Your task to perform on an android device: toggle location history Image 0: 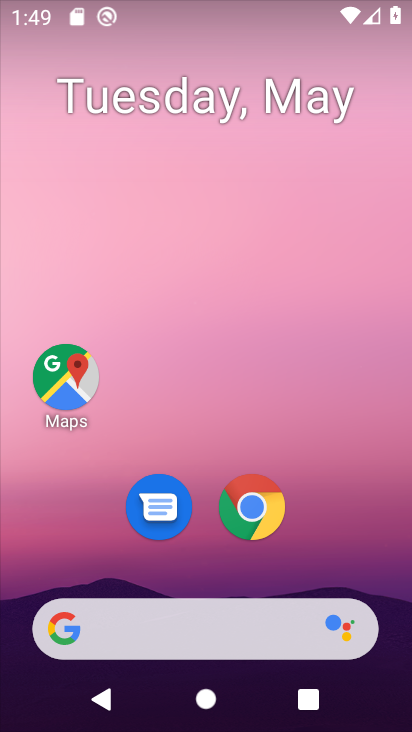
Step 0: drag from (201, 567) to (242, 124)
Your task to perform on an android device: toggle location history Image 1: 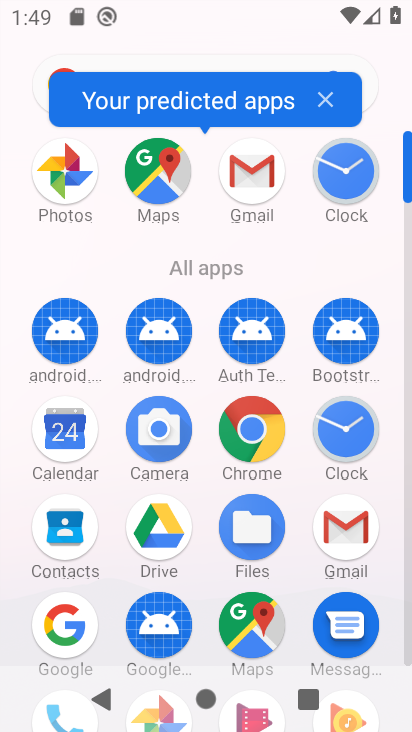
Step 1: drag from (114, 527) to (165, 194)
Your task to perform on an android device: toggle location history Image 2: 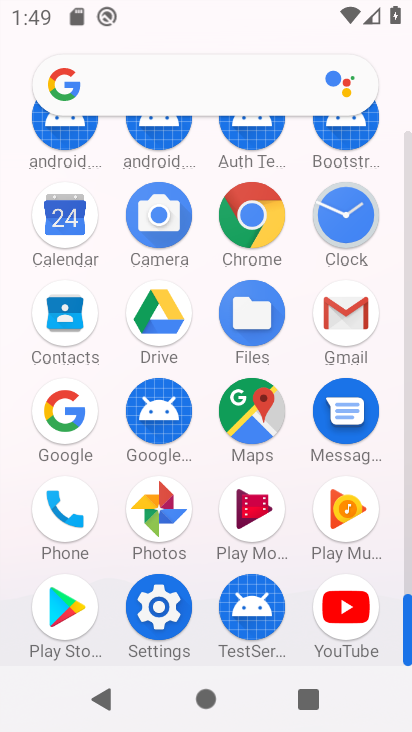
Step 2: click (142, 583)
Your task to perform on an android device: toggle location history Image 3: 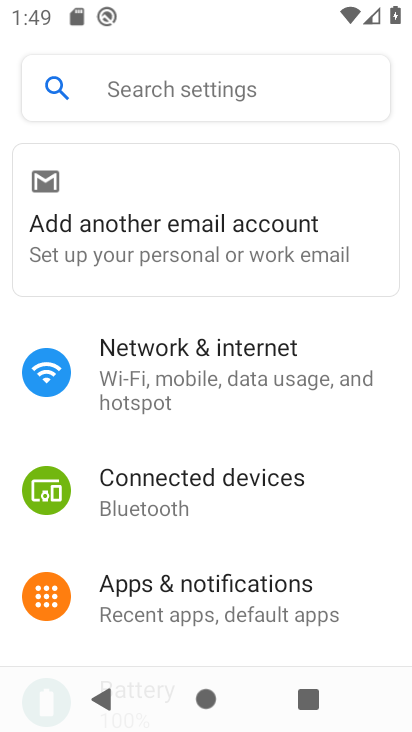
Step 3: drag from (204, 582) to (220, 286)
Your task to perform on an android device: toggle location history Image 4: 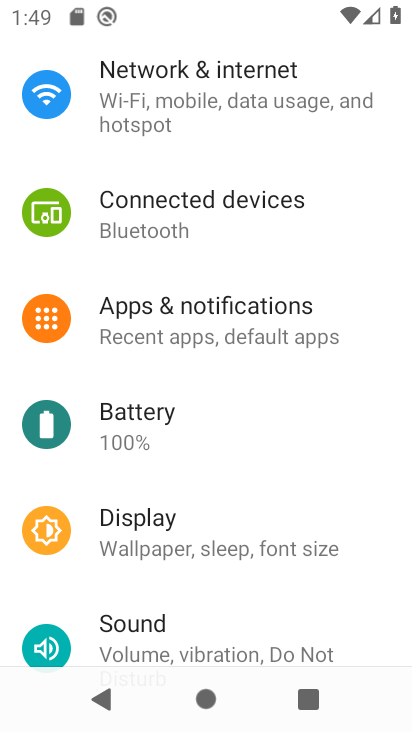
Step 4: drag from (223, 566) to (232, 275)
Your task to perform on an android device: toggle location history Image 5: 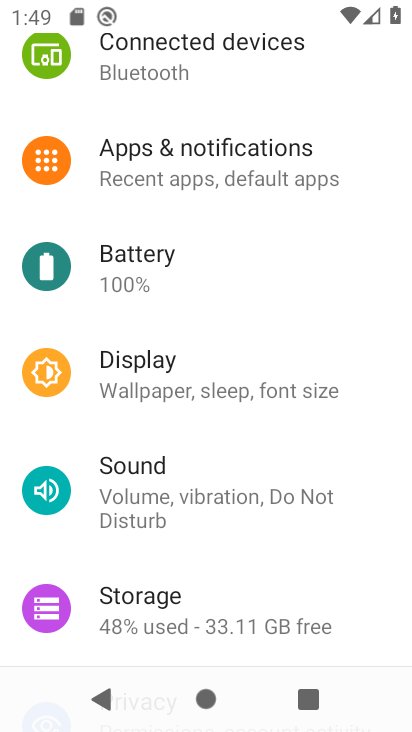
Step 5: drag from (204, 573) to (237, 210)
Your task to perform on an android device: toggle location history Image 6: 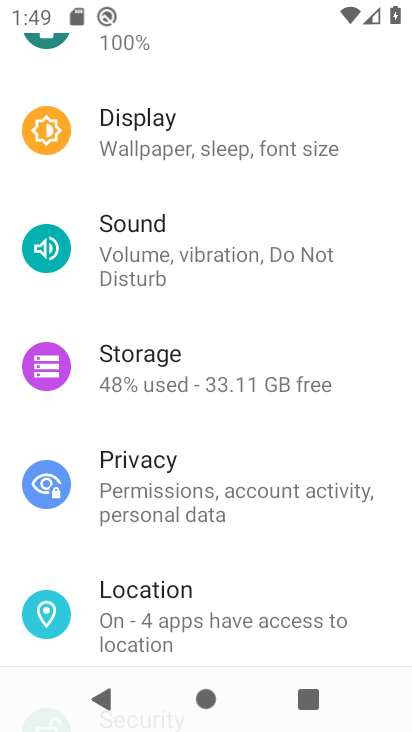
Step 6: click (220, 578)
Your task to perform on an android device: toggle location history Image 7: 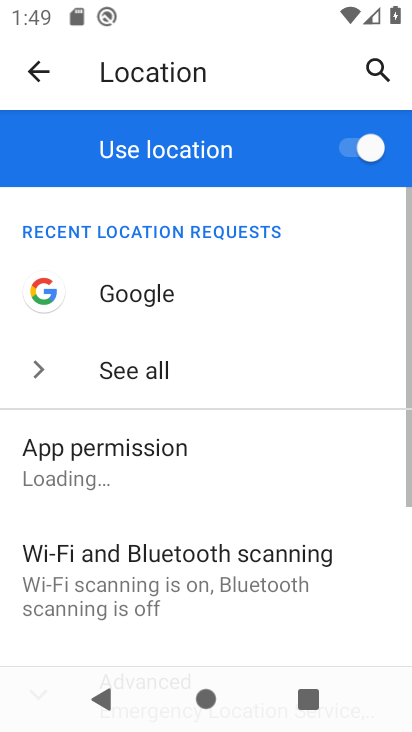
Step 7: drag from (220, 578) to (244, 287)
Your task to perform on an android device: toggle location history Image 8: 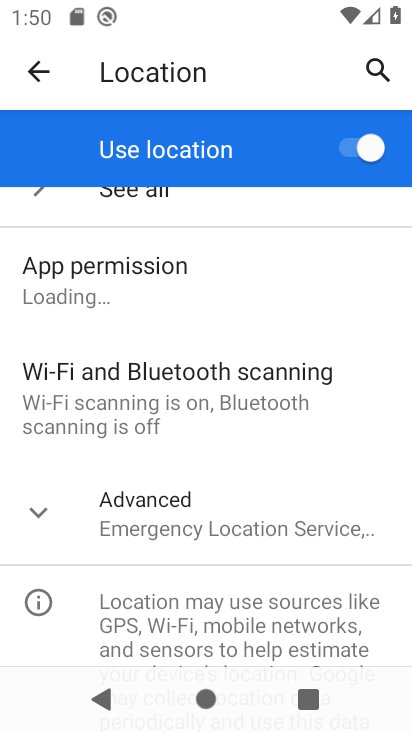
Step 8: click (222, 504)
Your task to perform on an android device: toggle location history Image 9: 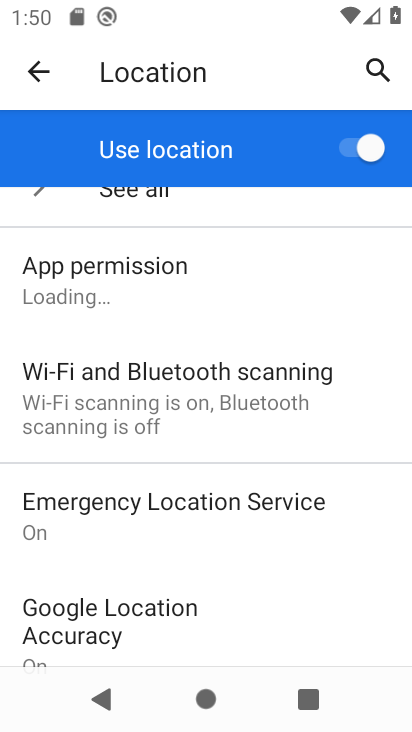
Step 9: drag from (200, 584) to (197, 410)
Your task to perform on an android device: toggle location history Image 10: 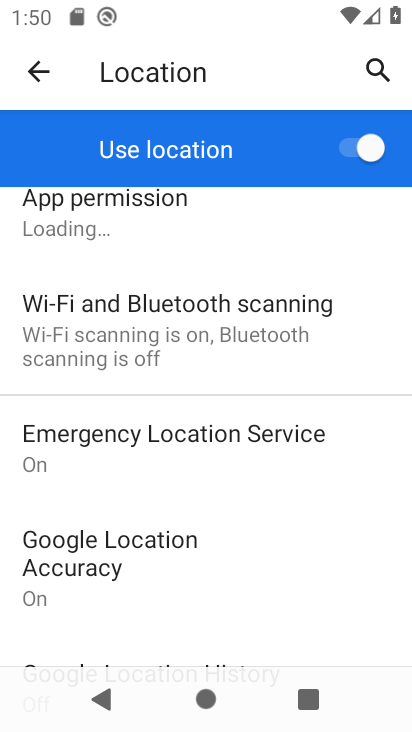
Step 10: drag from (192, 569) to (194, 371)
Your task to perform on an android device: toggle location history Image 11: 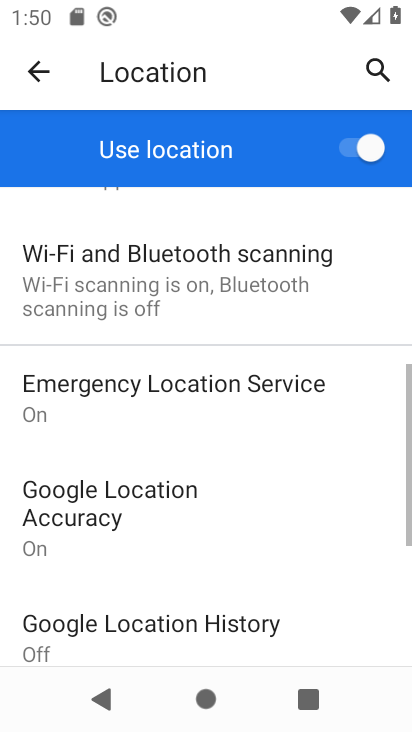
Step 11: click (203, 602)
Your task to perform on an android device: toggle location history Image 12: 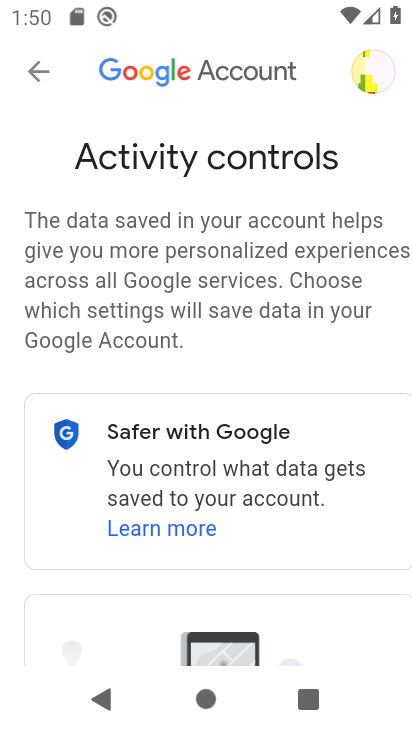
Step 12: drag from (212, 608) to (229, 279)
Your task to perform on an android device: toggle location history Image 13: 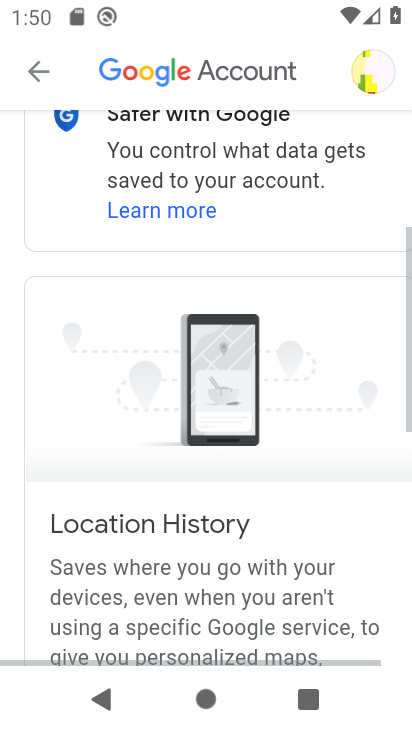
Step 13: drag from (262, 557) to (252, 307)
Your task to perform on an android device: toggle location history Image 14: 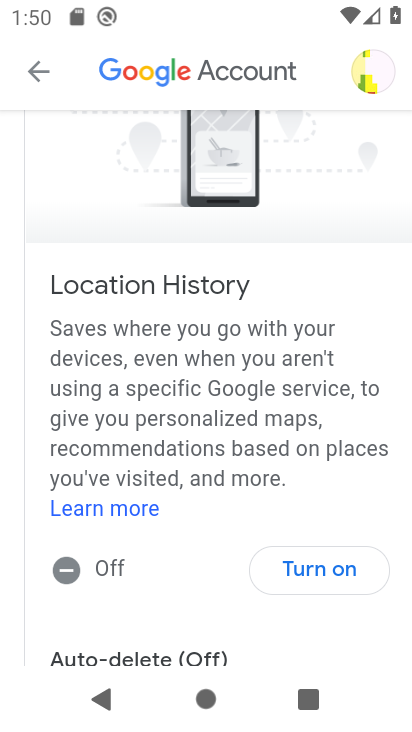
Step 14: click (307, 574)
Your task to perform on an android device: toggle location history Image 15: 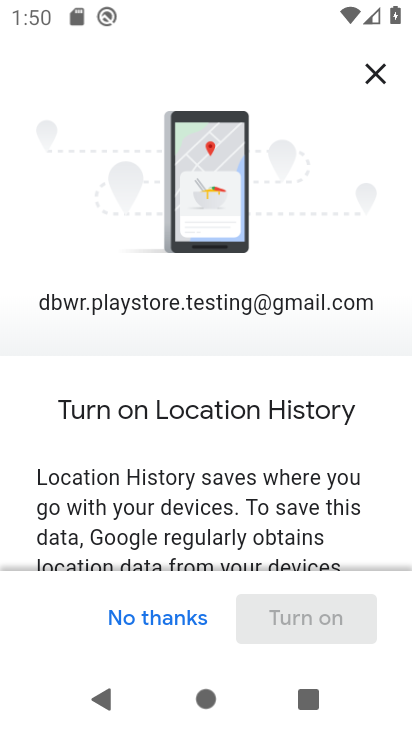
Step 15: drag from (305, 573) to (276, 234)
Your task to perform on an android device: toggle location history Image 16: 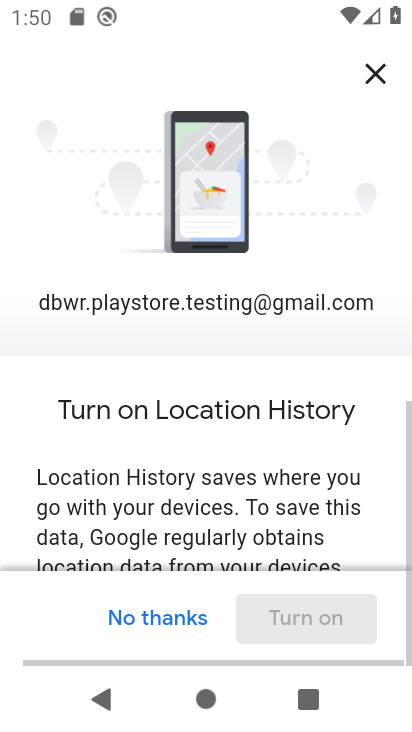
Step 16: drag from (309, 494) to (295, 153)
Your task to perform on an android device: toggle location history Image 17: 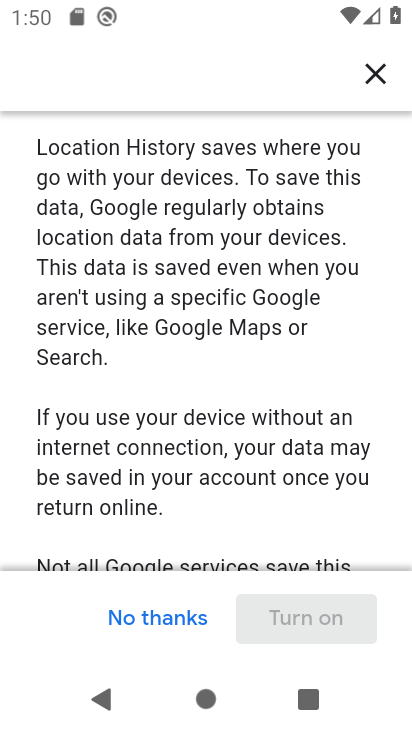
Step 17: drag from (297, 498) to (297, 203)
Your task to perform on an android device: toggle location history Image 18: 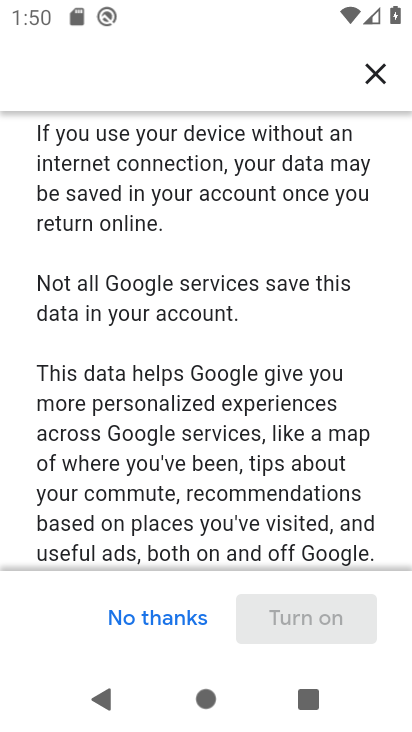
Step 18: drag from (314, 506) to (295, 155)
Your task to perform on an android device: toggle location history Image 19: 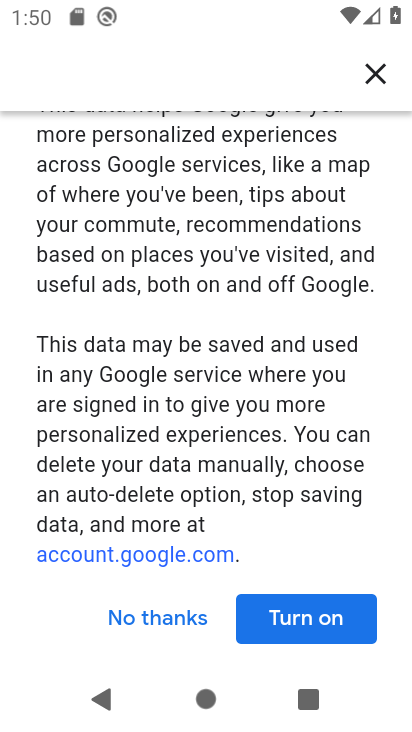
Step 19: click (303, 615)
Your task to perform on an android device: toggle location history Image 20: 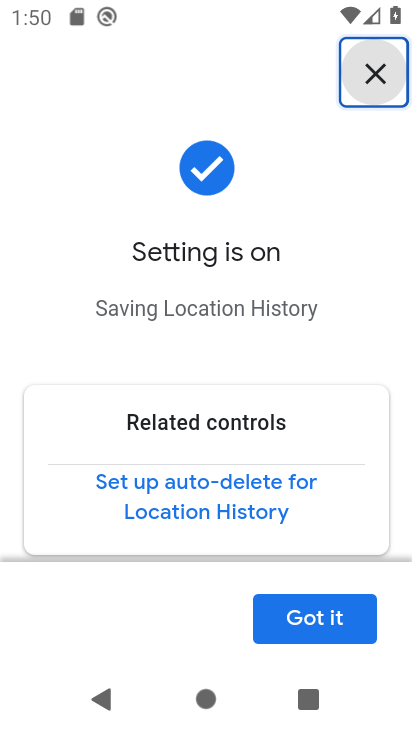
Step 20: task complete